Your task to perform on an android device: change your default location settings in chrome Image 0: 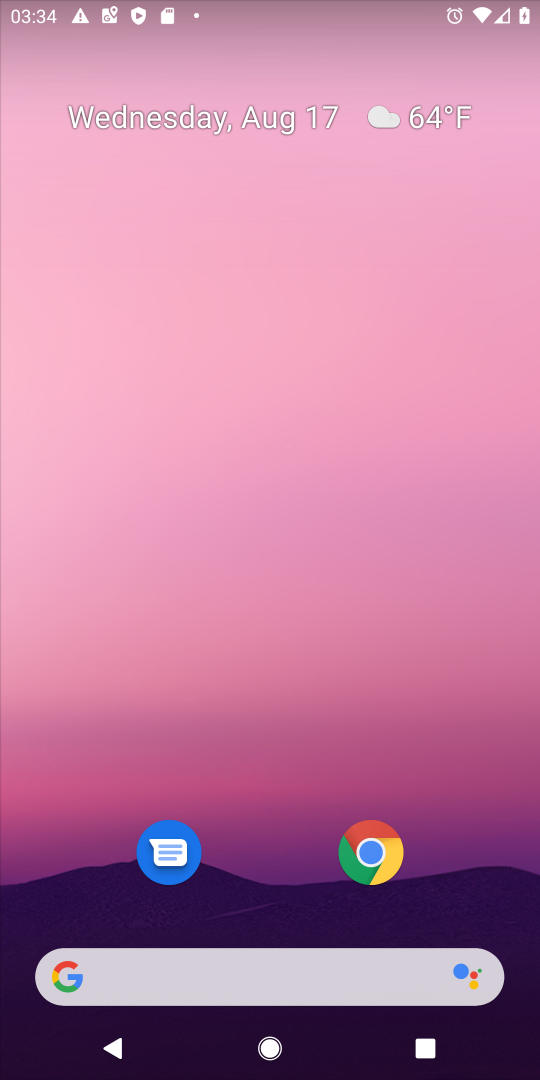
Step 0: drag from (271, 906) to (251, 46)
Your task to perform on an android device: change your default location settings in chrome Image 1: 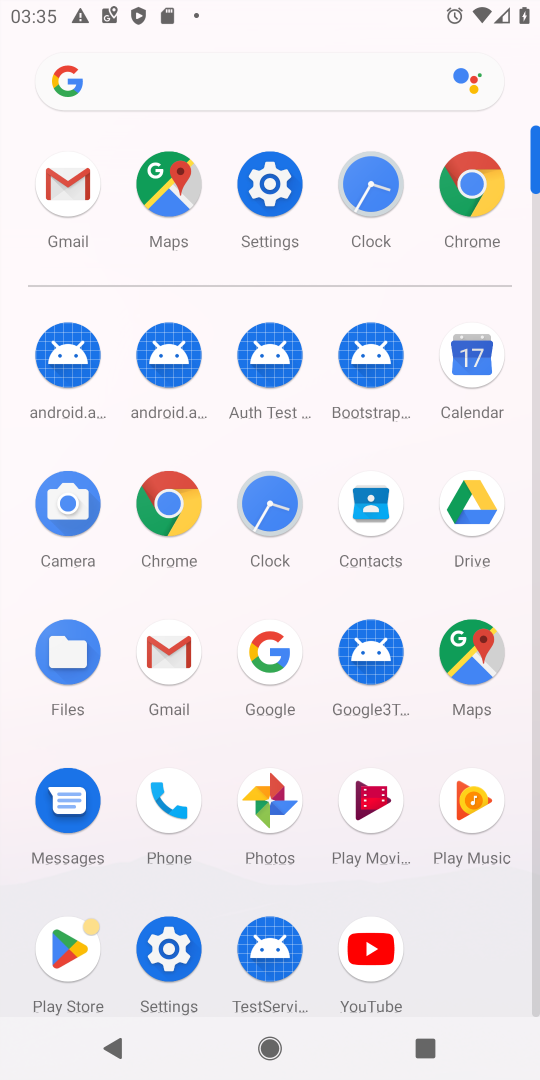
Step 1: click (173, 512)
Your task to perform on an android device: change your default location settings in chrome Image 2: 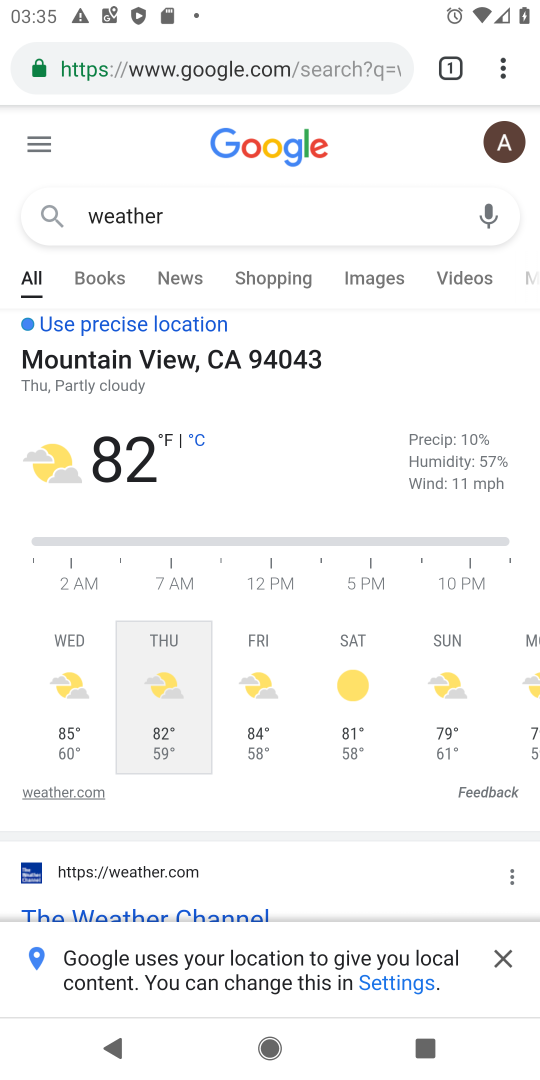
Step 2: drag from (512, 55) to (320, 772)
Your task to perform on an android device: change your default location settings in chrome Image 3: 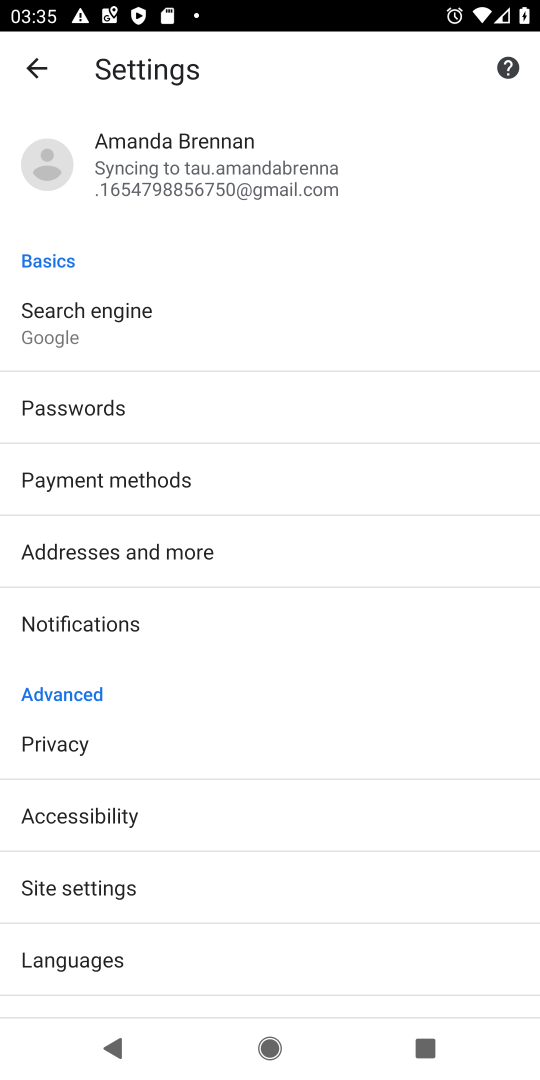
Step 3: drag from (267, 971) to (297, 572)
Your task to perform on an android device: change your default location settings in chrome Image 4: 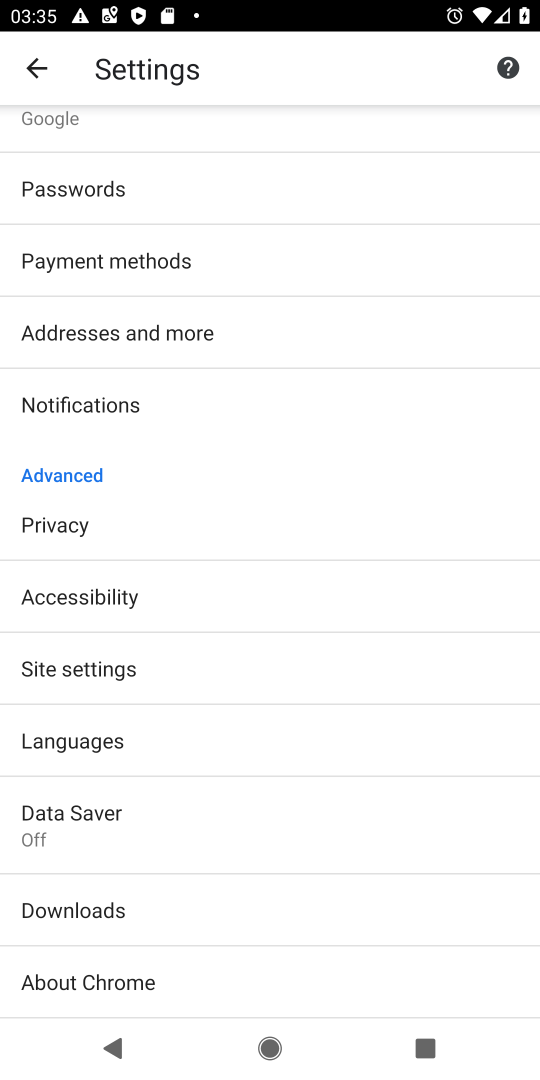
Step 4: drag from (272, 238) to (253, 888)
Your task to perform on an android device: change your default location settings in chrome Image 5: 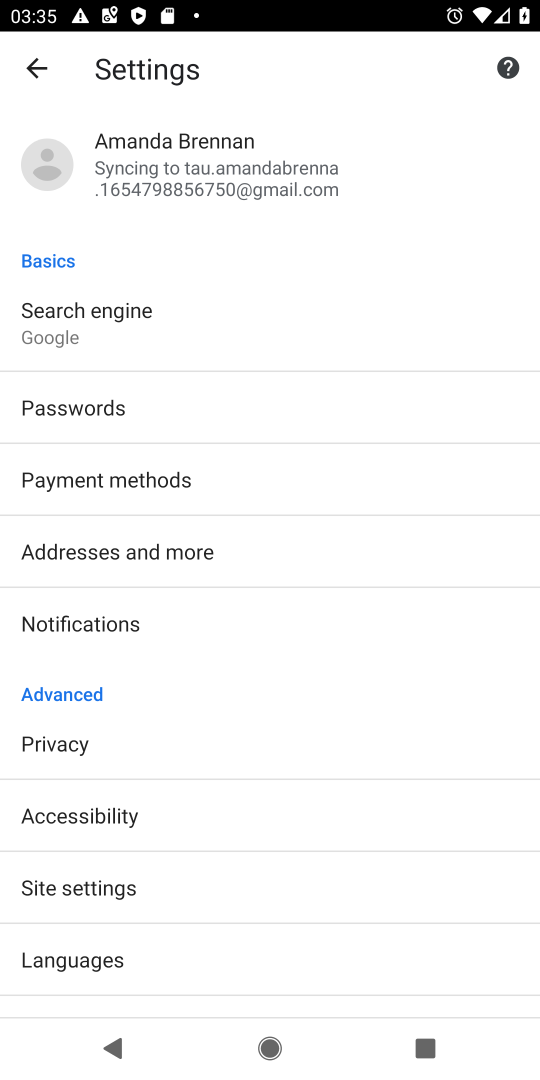
Step 5: click (178, 324)
Your task to perform on an android device: change your default location settings in chrome Image 6: 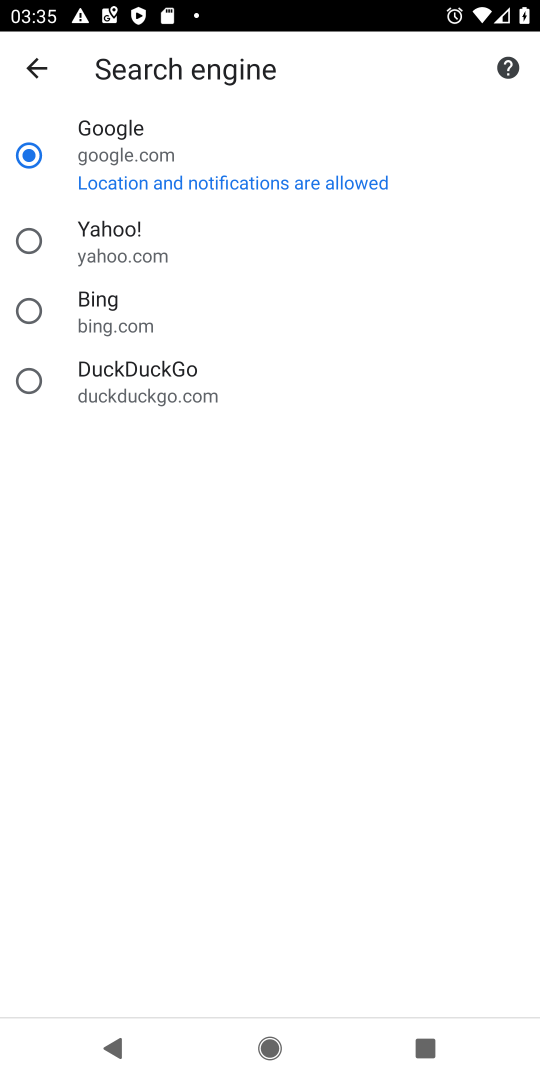
Step 6: click (43, 83)
Your task to perform on an android device: change your default location settings in chrome Image 7: 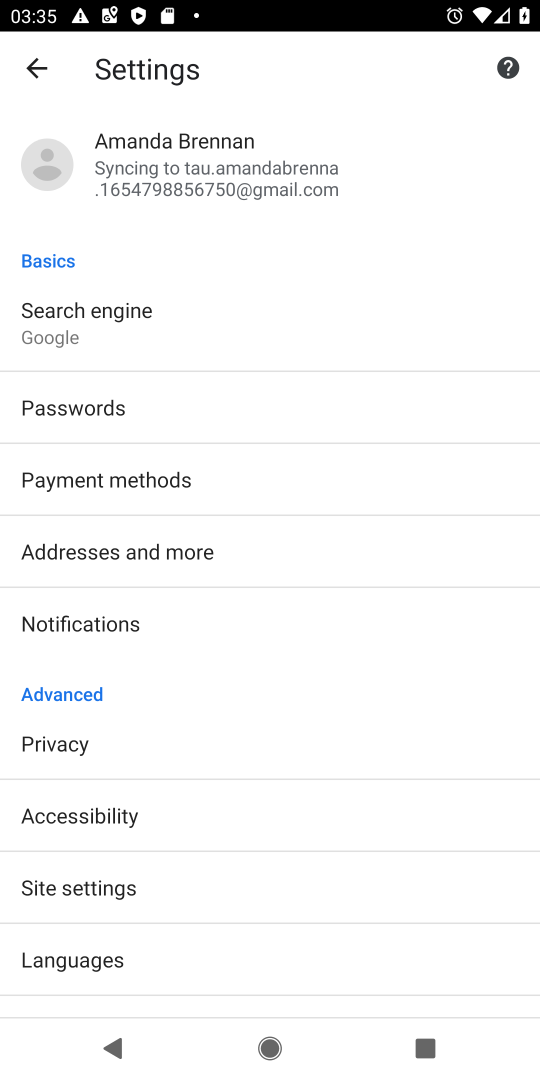
Step 7: click (112, 890)
Your task to perform on an android device: change your default location settings in chrome Image 8: 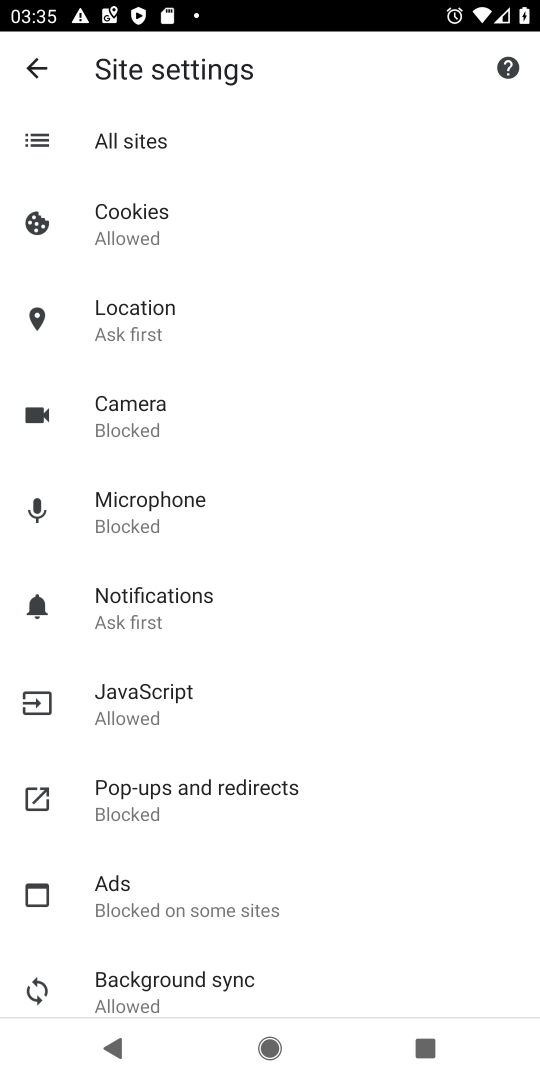
Step 8: click (168, 308)
Your task to perform on an android device: change your default location settings in chrome Image 9: 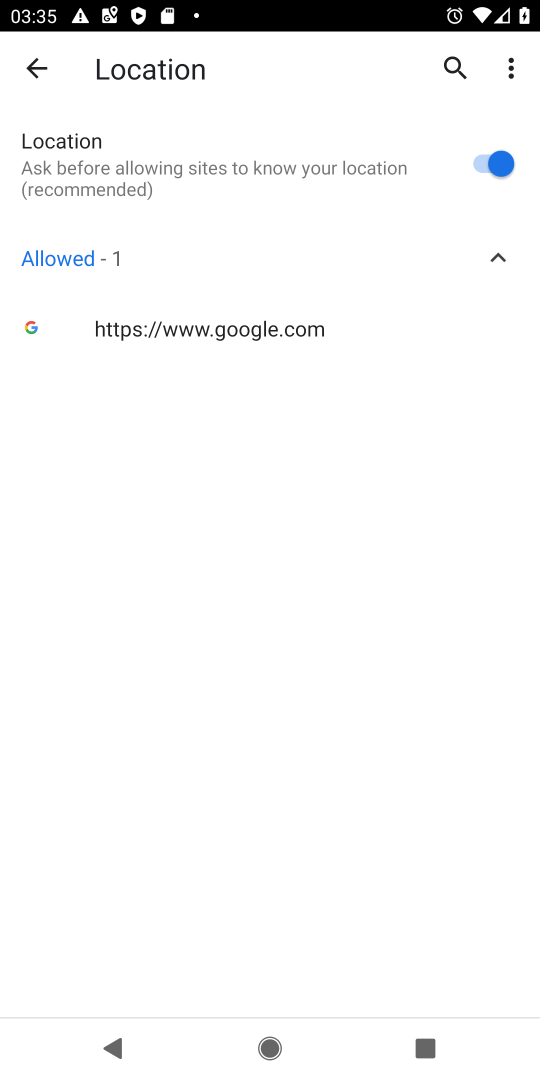
Step 9: click (486, 151)
Your task to perform on an android device: change your default location settings in chrome Image 10: 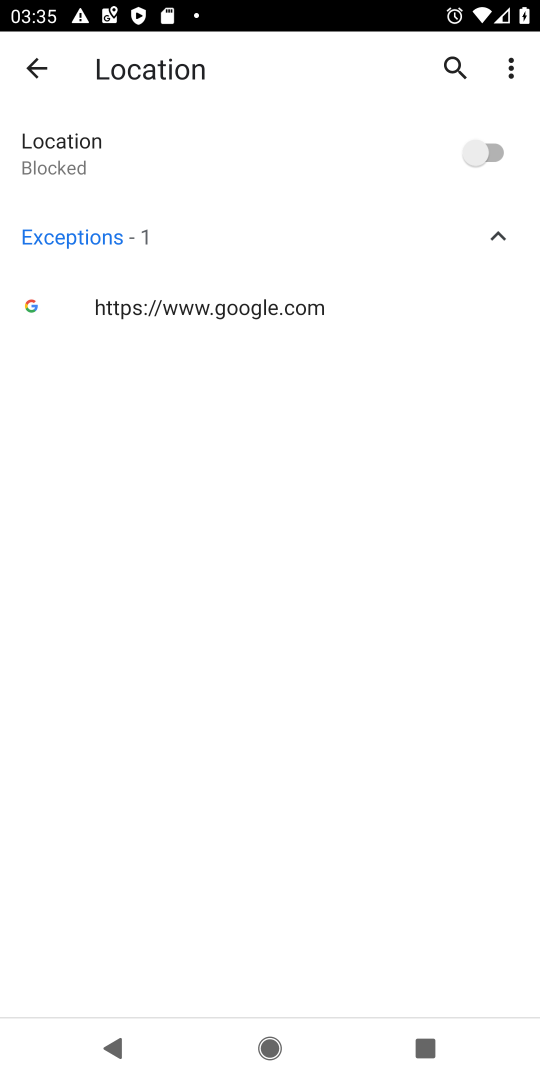
Step 10: task complete